Your task to perform on an android device: change the clock style Image 0: 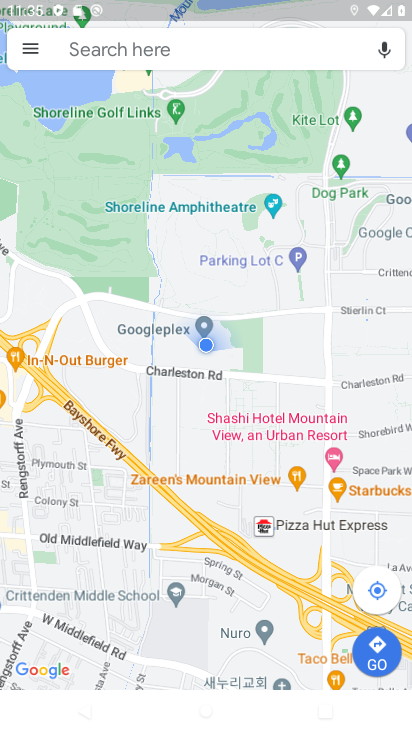
Step 0: press home button
Your task to perform on an android device: change the clock style Image 1: 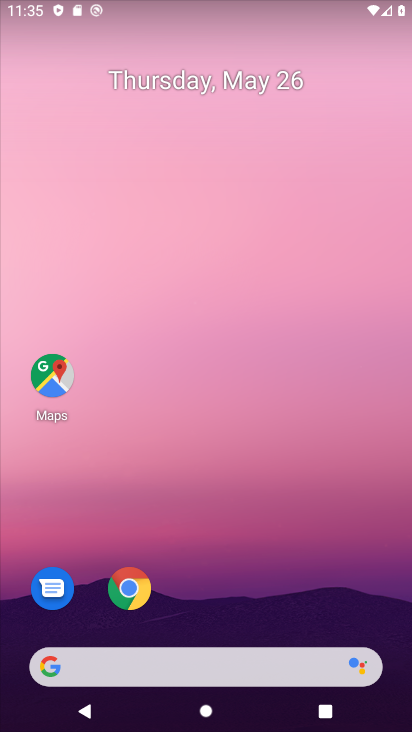
Step 1: drag from (214, 650) to (342, 61)
Your task to perform on an android device: change the clock style Image 2: 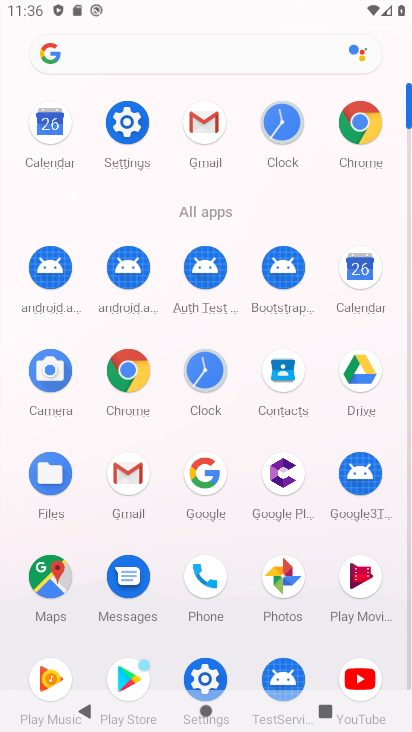
Step 2: click (196, 378)
Your task to perform on an android device: change the clock style Image 3: 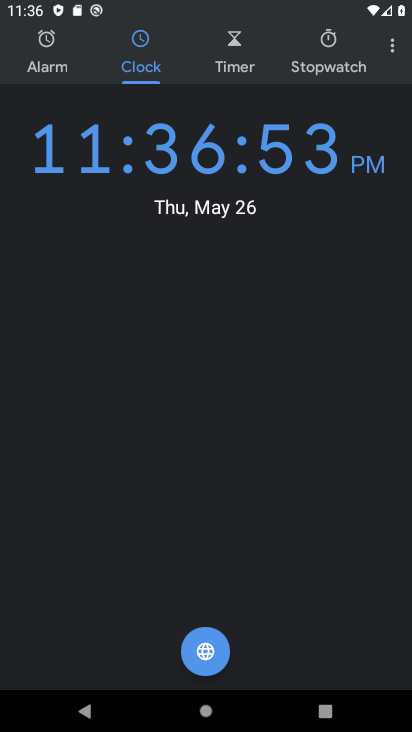
Step 3: click (385, 51)
Your task to perform on an android device: change the clock style Image 4: 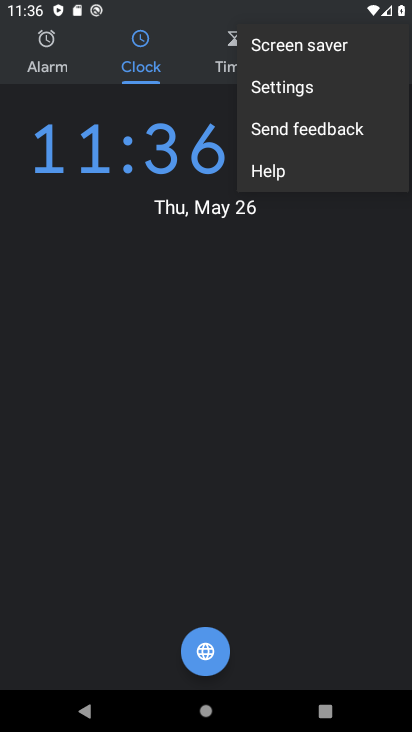
Step 4: click (308, 91)
Your task to perform on an android device: change the clock style Image 5: 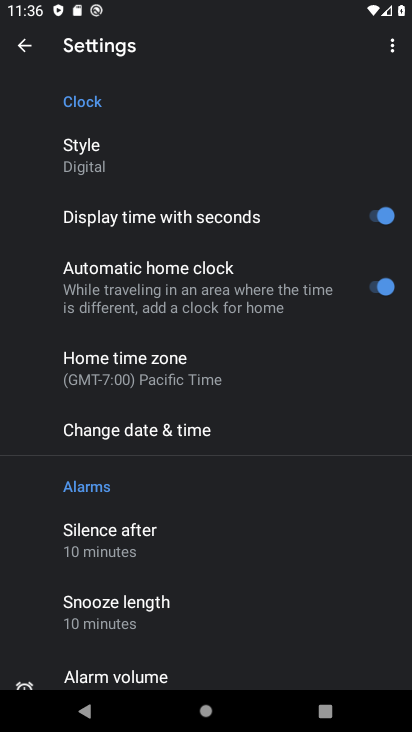
Step 5: drag from (154, 621) to (132, 501)
Your task to perform on an android device: change the clock style Image 6: 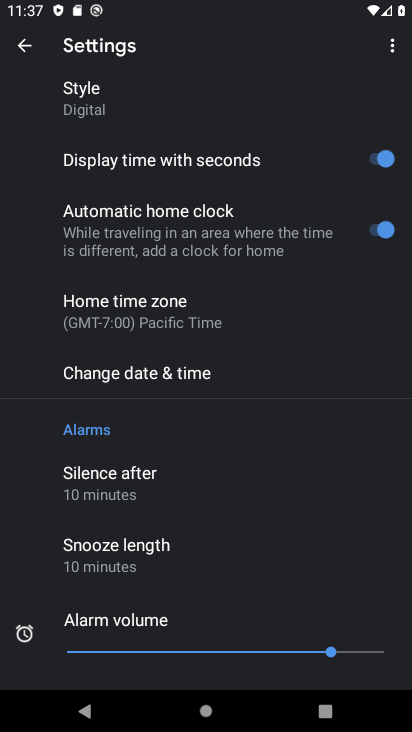
Step 6: click (89, 107)
Your task to perform on an android device: change the clock style Image 7: 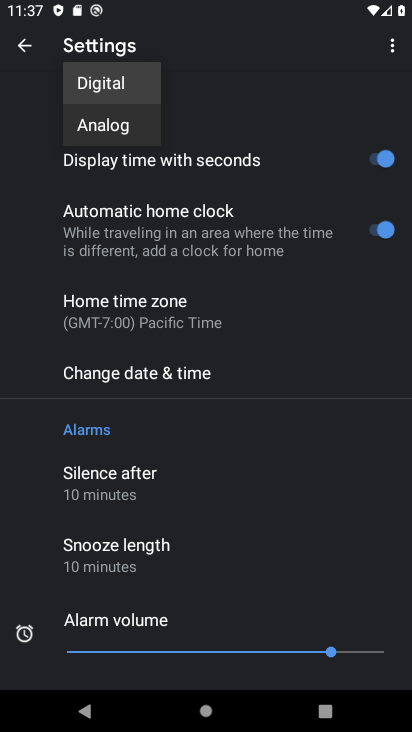
Step 7: click (103, 127)
Your task to perform on an android device: change the clock style Image 8: 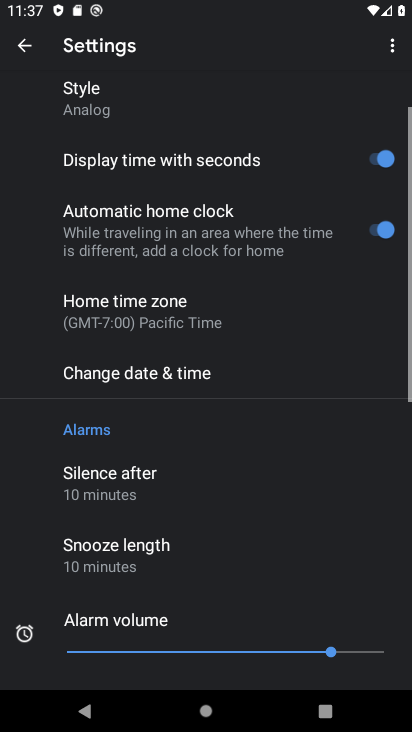
Step 8: task complete